Your task to perform on an android device: turn on translation in the chrome app Image 0: 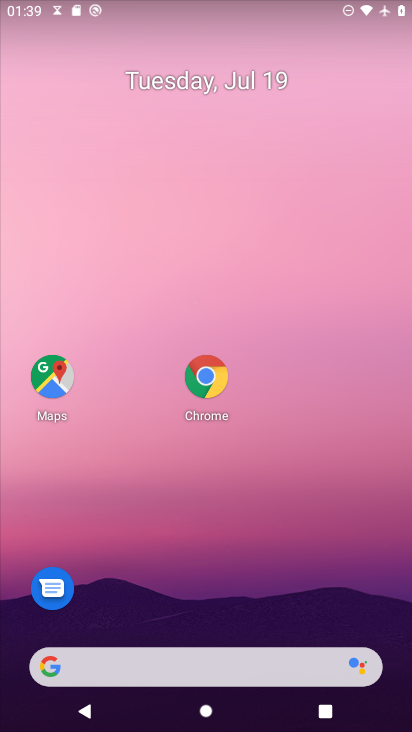
Step 0: press home button
Your task to perform on an android device: turn on translation in the chrome app Image 1: 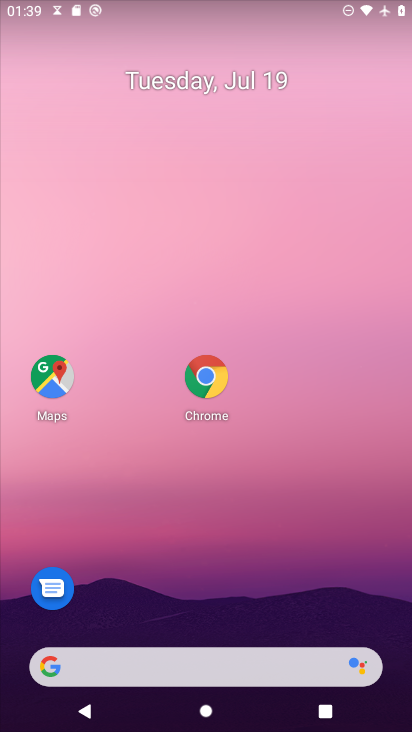
Step 1: drag from (232, 633) to (195, 66)
Your task to perform on an android device: turn on translation in the chrome app Image 2: 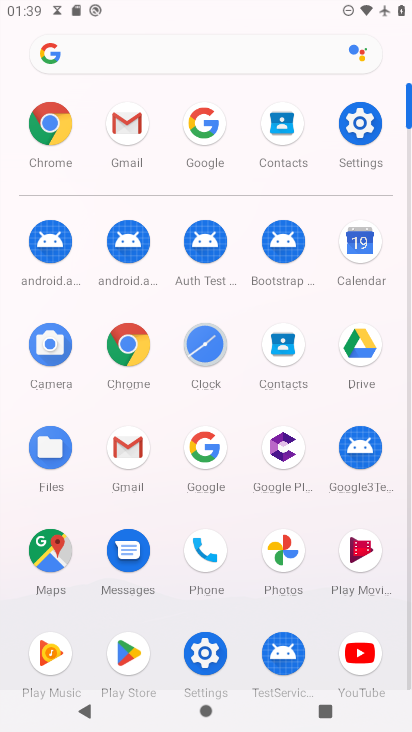
Step 2: click (47, 131)
Your task to perform on an android device: turn on translation in the chrome app Image 3: 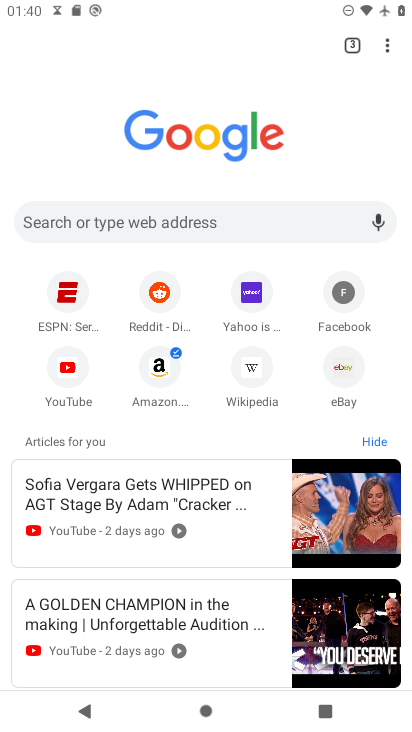
Step 3: drag from (387, 46) to (236, 384)
Your task to perform on an android device: turn on translation in the chrome app Image 4: 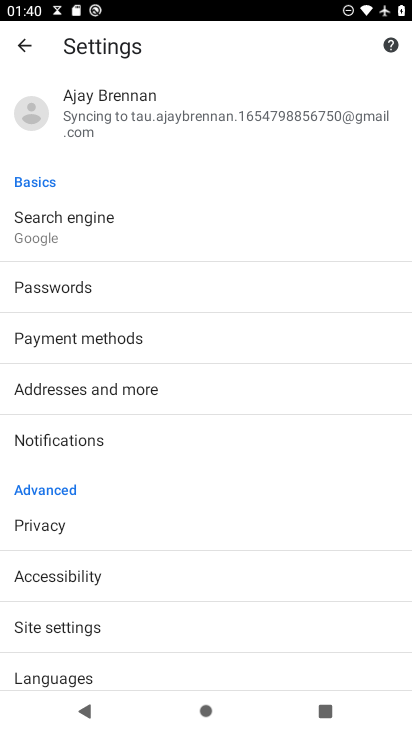
Step 4: click (56, 679)
Your task to perform on an android device: turn on translation in the chrome app Image 5: 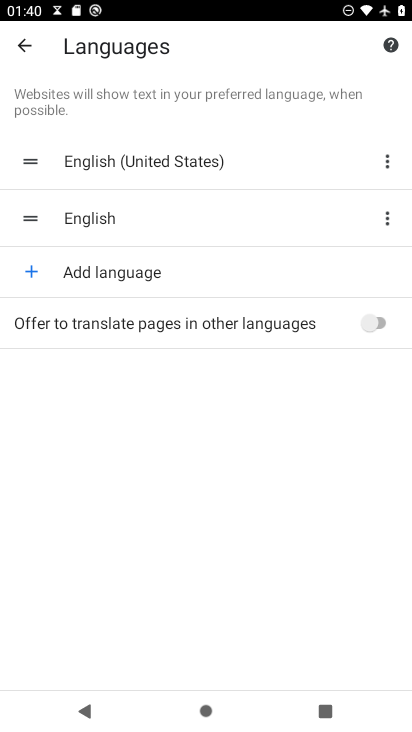
Step 5: click (370, 319)
Your task to perform on an android device: turn on translation in the chrome app Image 6: 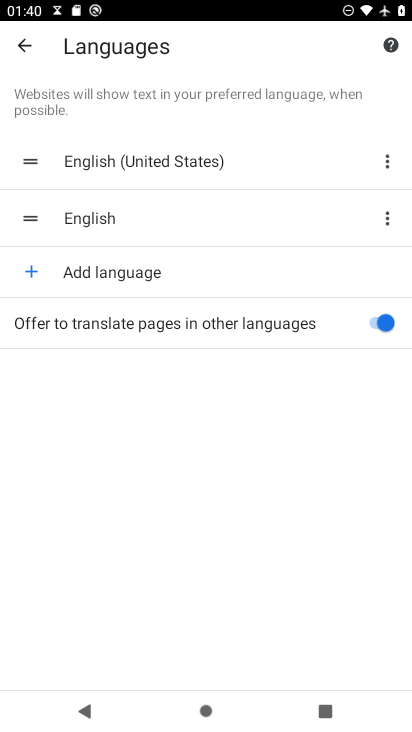
Step 6: task complete